Your task to perform on an android device: Go to Google Image 0: 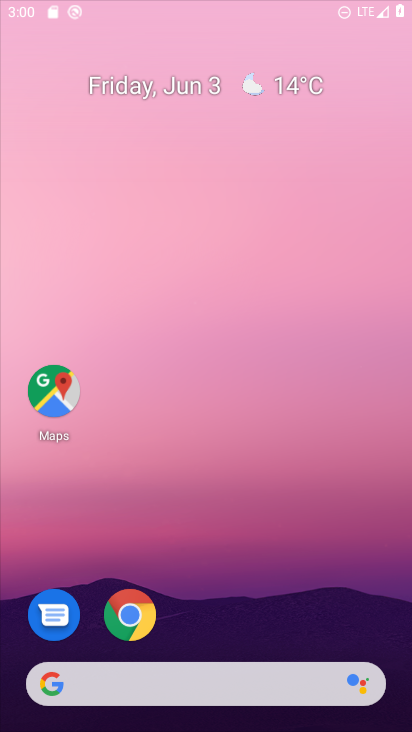
Step 0: drag from (184, 22) to (194, 103)
Your task to perform on an android device: Go to Google Image 1: 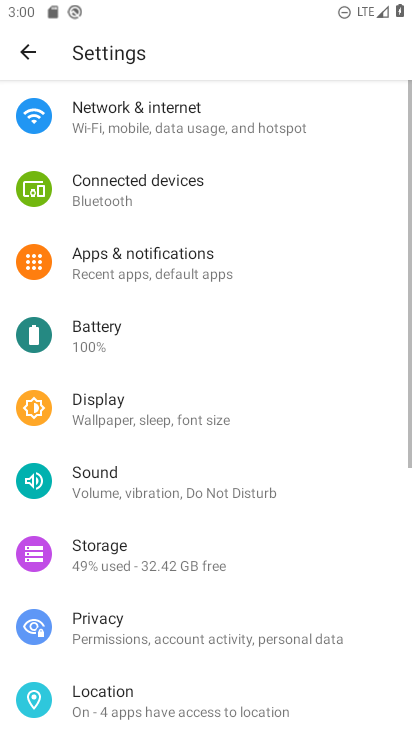
Step 1: press home button
Your task to perform on an android device: Go to Google Image 2: 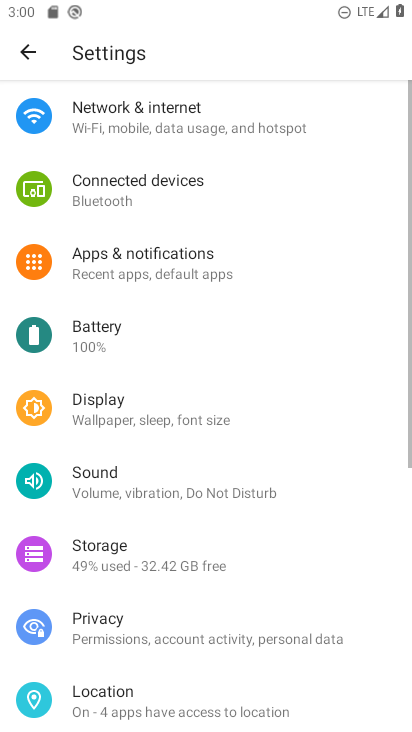
Step 2: drag from (251, 455) to (254, 85)
Your task to perform on an android device: Go to Google Image 3: 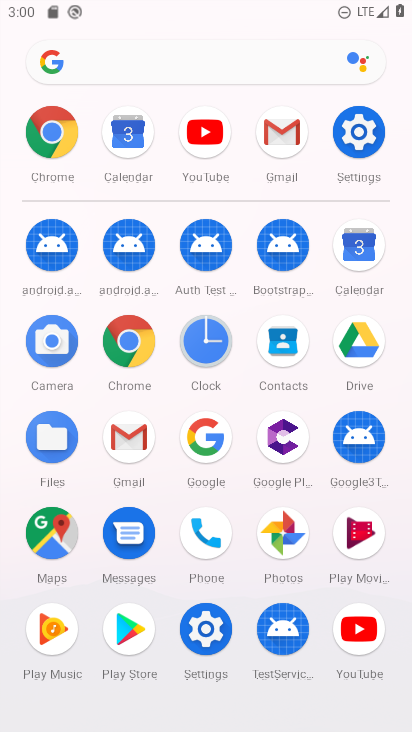
Step 3: click (176, 69)
Your task to perform on an android device: Go to Google Image 4: 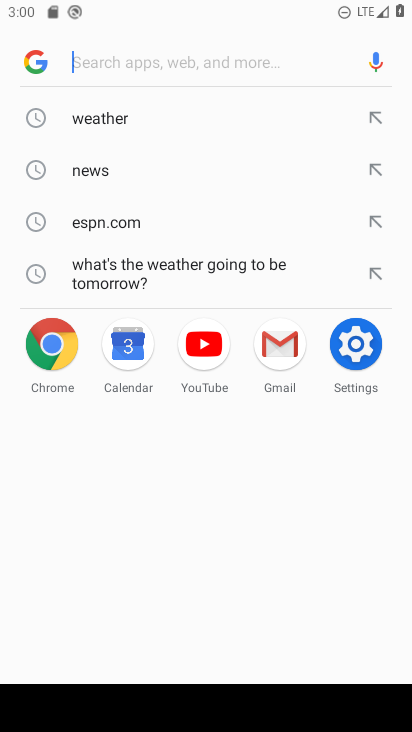
Step 4: click (140, 62)
Your task to perform on an android device: Go to Google Image 5: 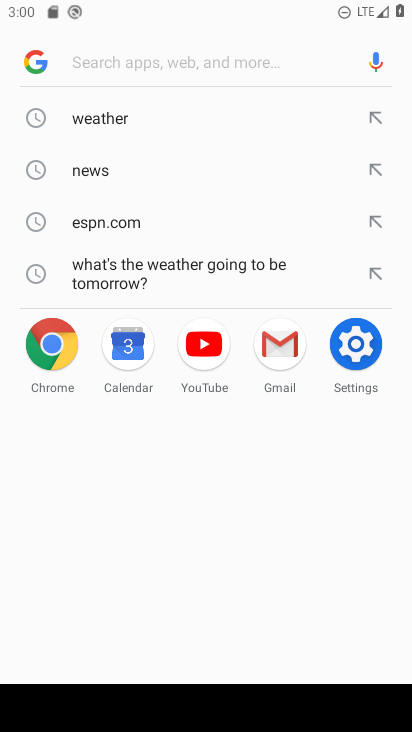
Step 5: press home button
Your task to perform on an android device: Go to Google Image 6: 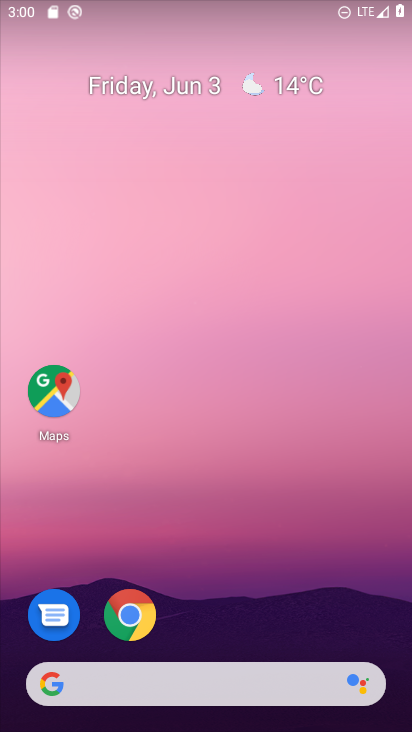
Step 6: drag from (192, 625) to (211, 5)
Your task to perform on an android device: Go to Google Image 7: 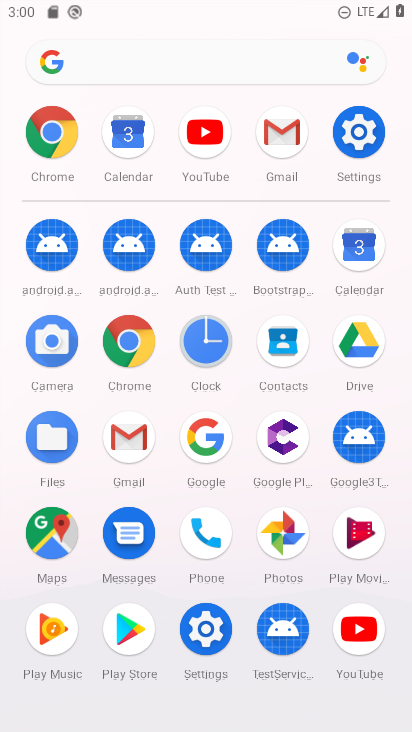
Step 7: click (182, 442)
Your task to perform on an android device: Go to Google Image 8: 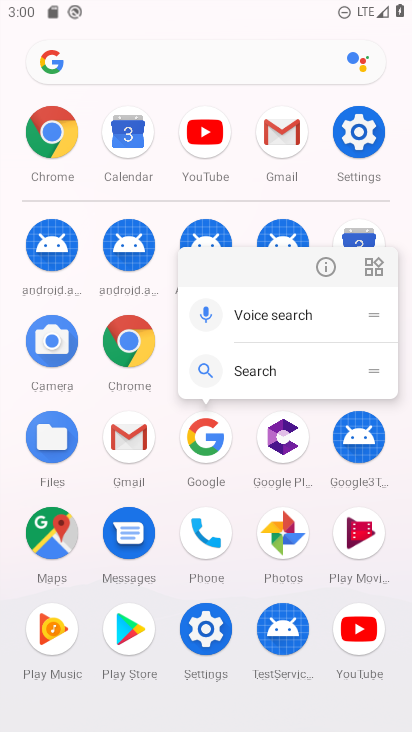
Step 8: click (330, 268)
Your task to perform on an android device: Go to Google Image 9: 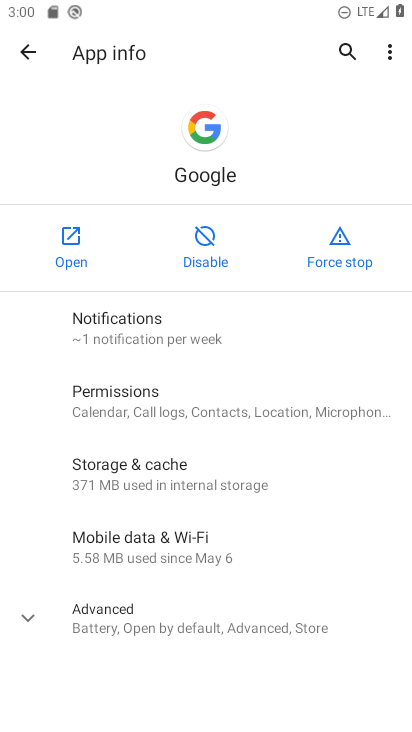
Step 9: click (75, 253)
Your task to perform on an android device: Go to Google Image 10: 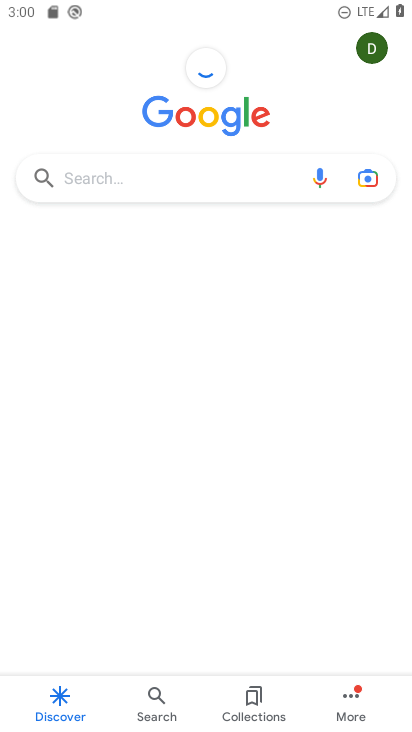
Step 10: task complete